Your task to perform on an android device: turn notification dots off Image 0: 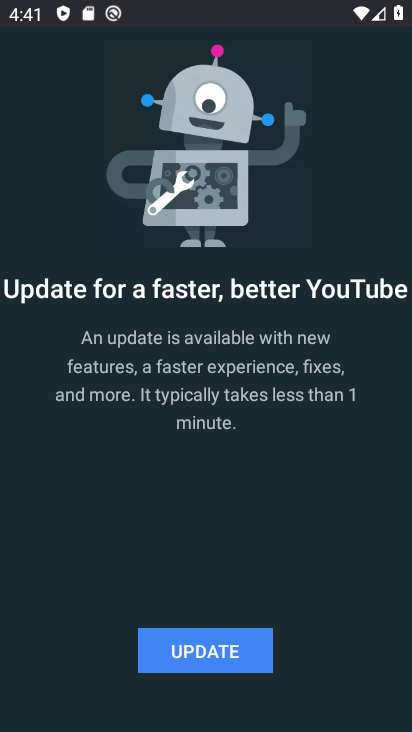
Step 0: press home button
Your task to perform on an android device: turn notification dots off Image 1: 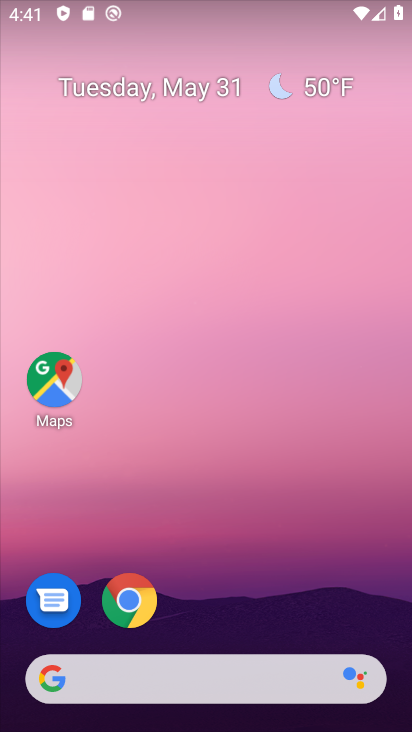
Step 1: drag from (229, 544) to (223, 91)
Your task to perform on an android device: turn notification dots off Image 2: 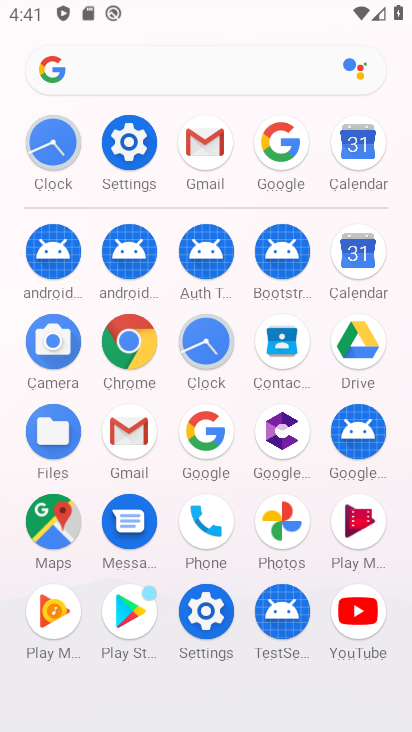
Step 2: click (130, 141)
Your task to perform on an android device: turn notification dots off Image 3: 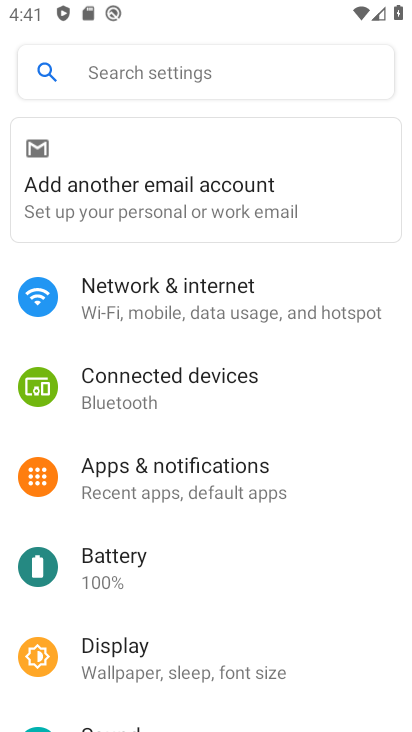
Step 3: drag from (163, 540) to (184, 408)
Your task to perform on an android device: turn notification dots off Image 4: 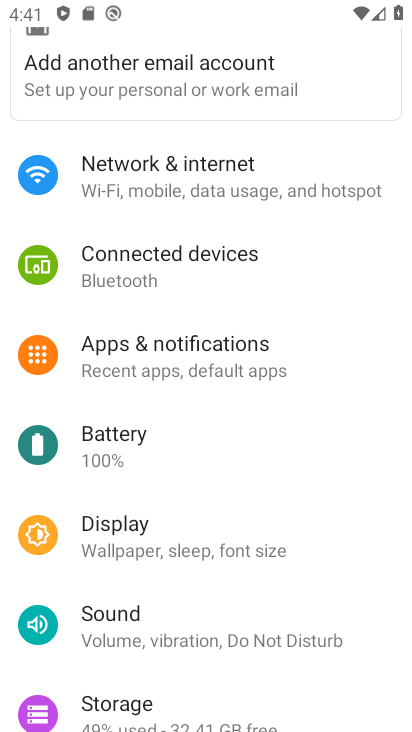
Step 4: click (230, 347)
Your task to perform on an android device: turn notification dots off Image 5: 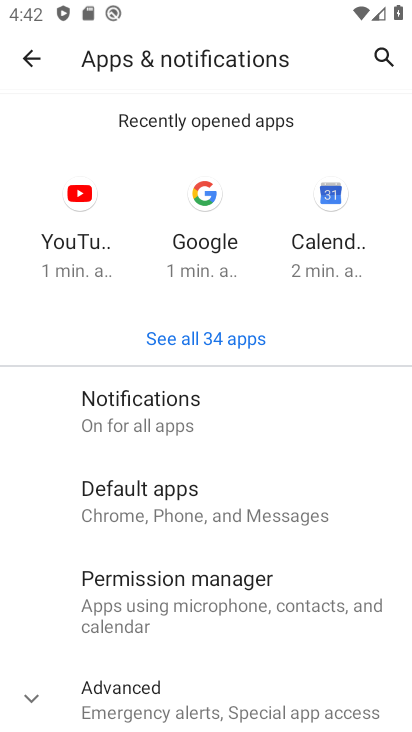
Step 5: click (160, 411)
Your task to perform on an android device: turn notification dots off Image 6: 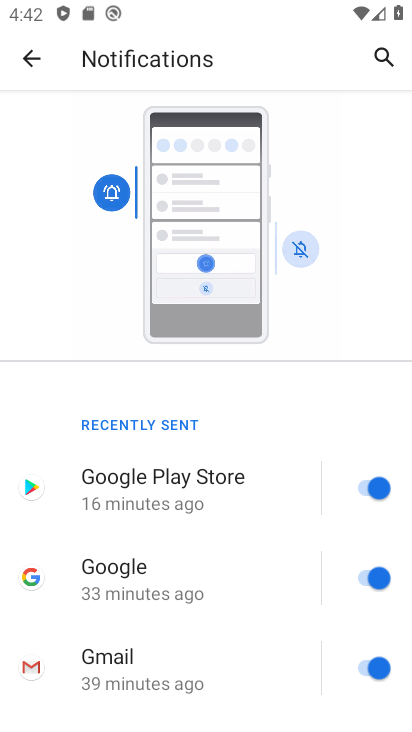
Step 6: drag from (167, 545) to (244, 369)
Your task to perform on an android device: turn notification dots off Image 7: 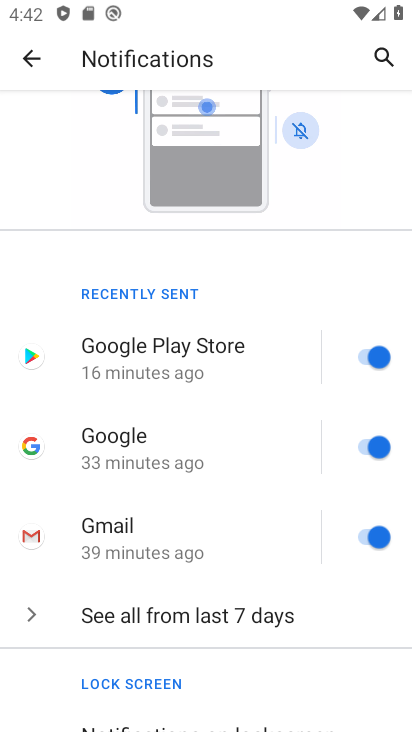
Step 7: drag from (204, 672) to (245, 535)
Your task to perform on an android device: turn notification dots off Image 8: 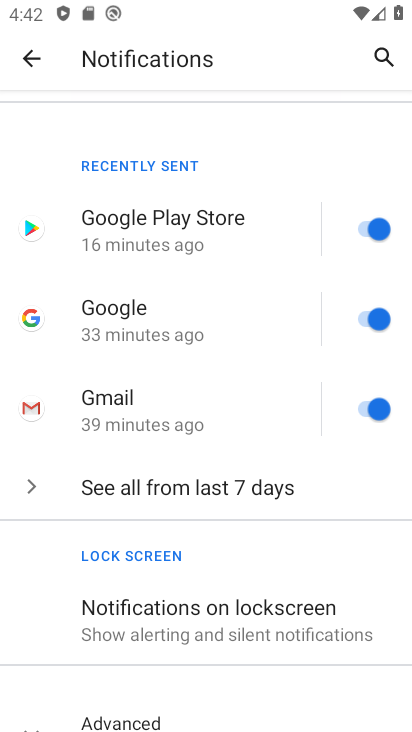
Step 8: drag from (159, 650) to (236, 555)
Your task to perform on an android device: turn notification dots off Image 9: 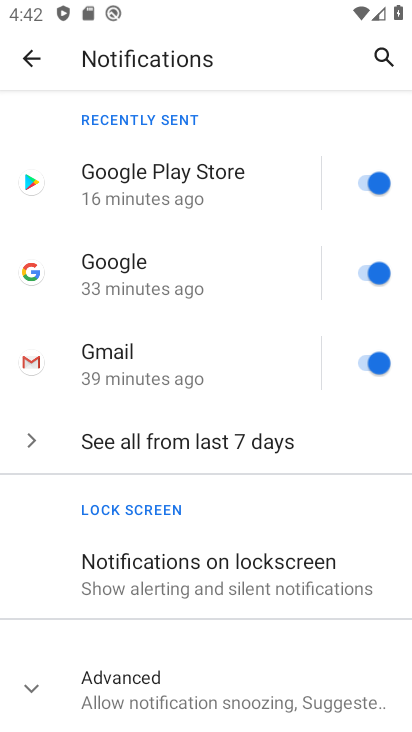
Step 9: click (133, 684)
Your task to perform on an android device: turn notification dots off Image 10: 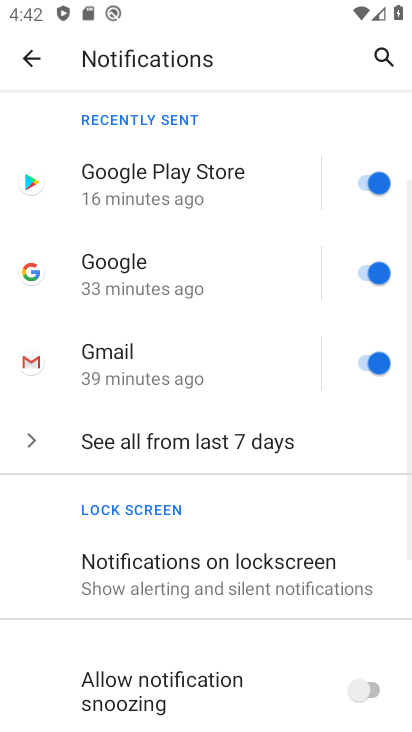
Step 10: drag from (183, 658) to (185, 547)
Your task to perform on an android device: turn notification dots off Image 11: 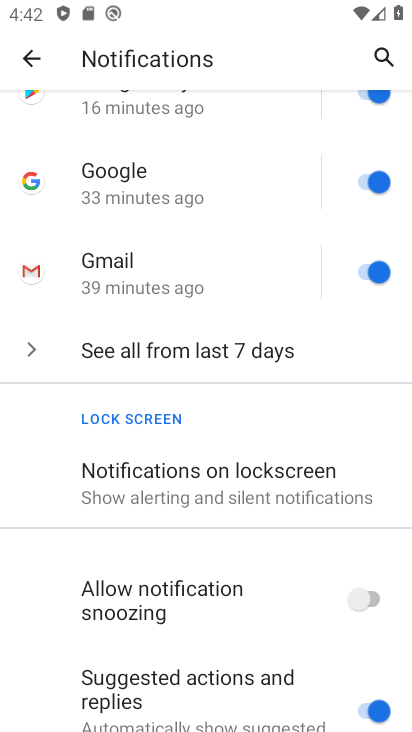
Step 11: drag from (205, 701) to (253, 598)
Your task to perform on an android device: turn notification dots off Image 12: 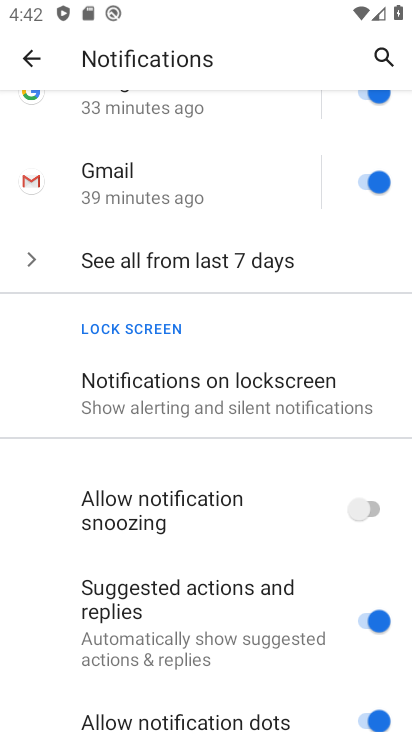
Step 12: drag from (226, 646) to (284, 480)
Your task to perform on an android device: turn notification dots off Image 13: 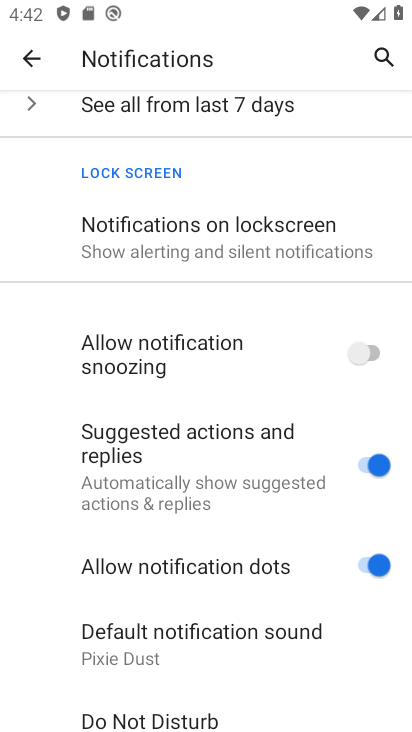
Step 13: click (369, 567)
Your task to perform on an android device: turn notification dots off Image 14: 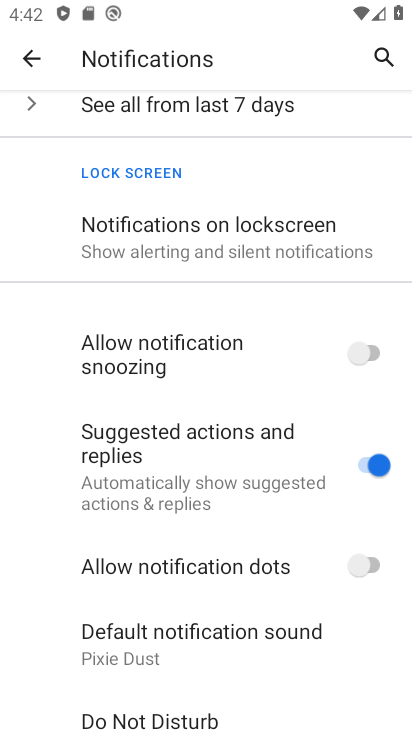
Step 14: task complete